Your task to perform on an android device: What's the weather going to be tomorrow? Image 0: 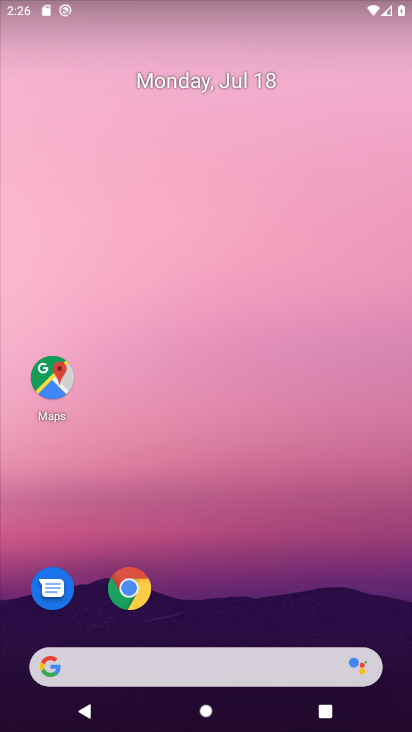
Step 0: click (229, 663)
Your task to perform on an android device: What's the weather going to be tomorrow? Image 1: 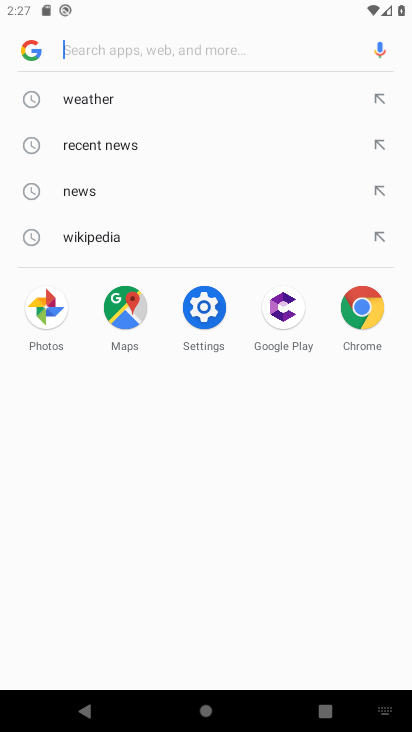
Step 1: type "what's the weather going to be tomorrow?"
Your task to perform on an android device: What's the weather going to be tomorrow? Image 2: 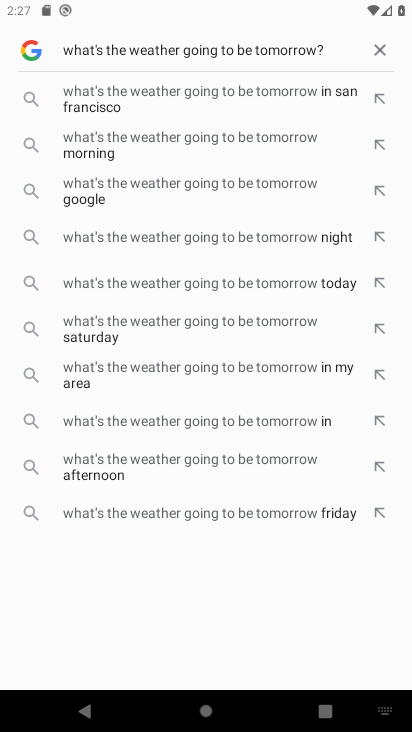
Step 2: click (138, 188)
Your task to perform on an android device: What's the weather going to be tomorrow? Image 3: 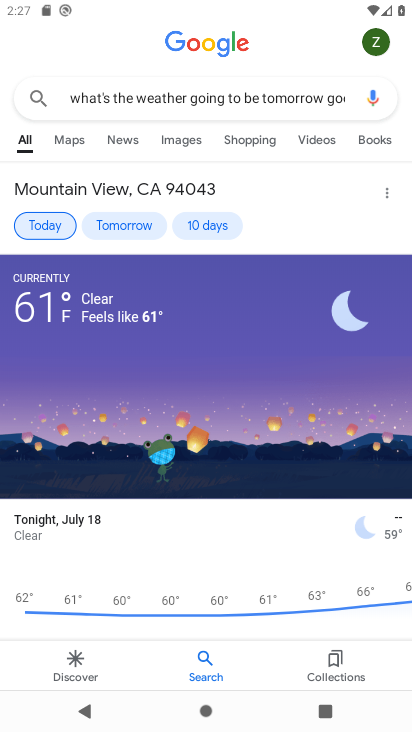
Step 3: click (142, 225)
Your task to perform on an android device: What's the weather going to be tomorrow? Image 4: 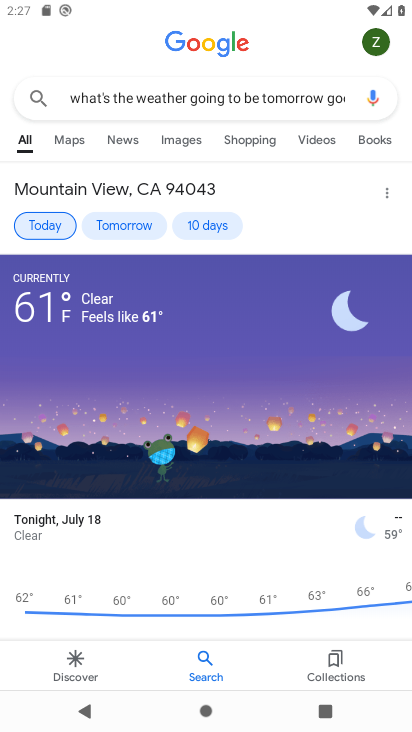
Step 4: click (142, 225)
Your task to perform on an android device: What's the weather going to be tomorrow? Image 5: 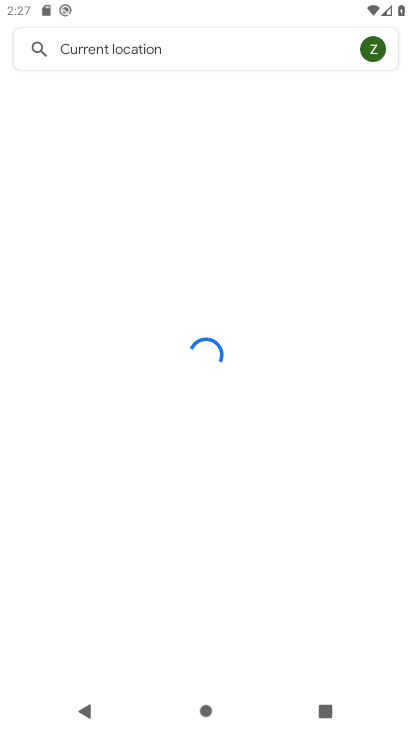
Step 5: task complete